Your task to perform on an android device: find which apps use the phone's location Image 0: 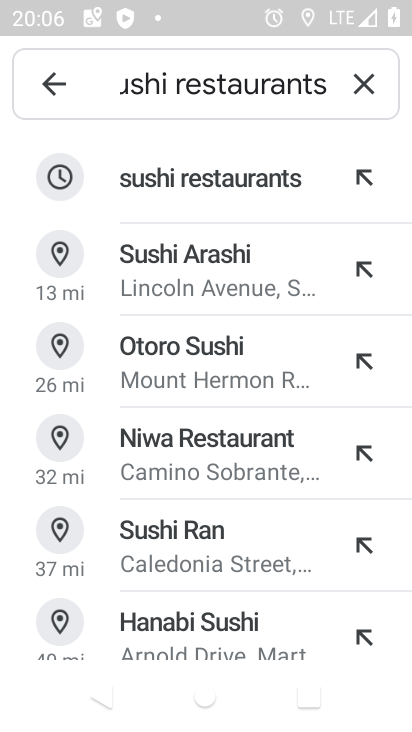
Step 0: press home button
Your task to perform on an android device: find which apps use the phone's location Image 1: 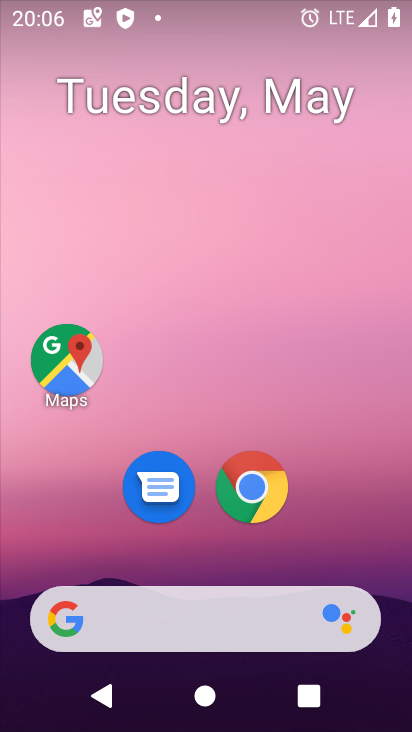
Step 1: drag from (323, 492) to (226, 58)
Your task to perform on an android device: find which apps use the phone's location Image 2: 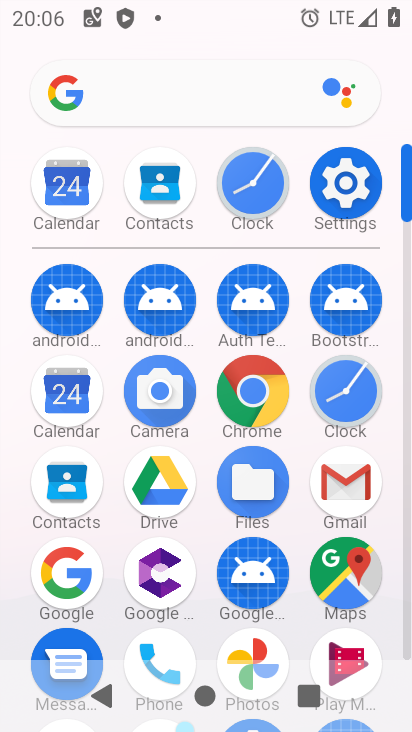
Step 2: click (357, 197)
Your task to perform on an android device: find which apps use the phone's location Image 3: 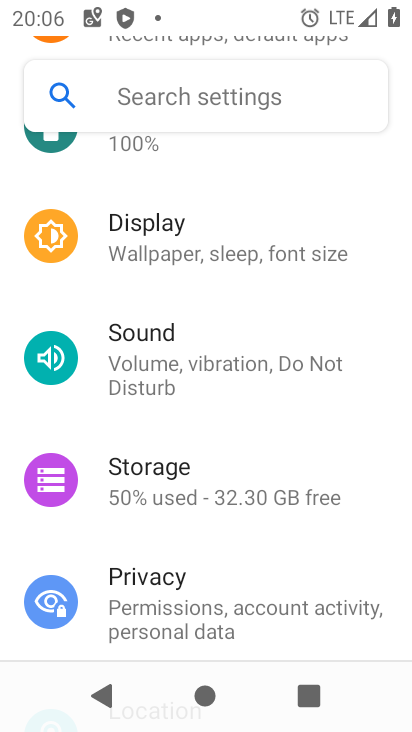
Step 3: drag from (208, 438) to (147, 150)
Your task to perform on an android device: find which apps use the phone's location Image 4: 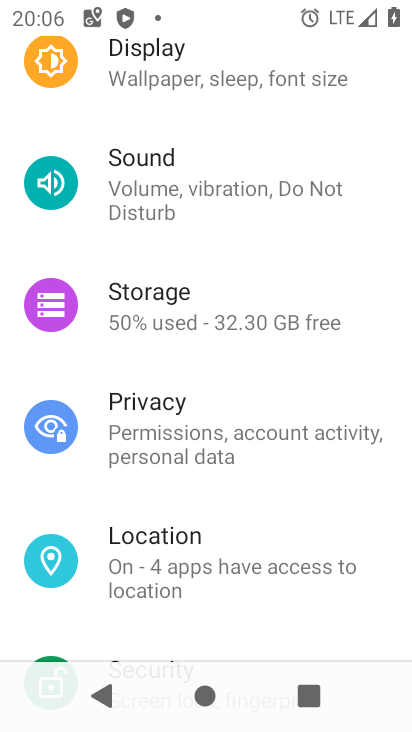
Step 4: click (172, 533)
Your task to perform on an android device: find which apps use the phone's location Image 5: 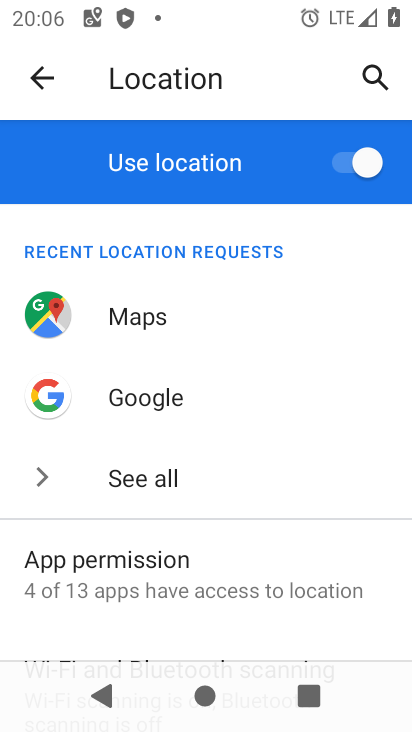
Step 5: click (136, 478)
Your task to perform on an android device: find which apps use the phone's location Image 6: 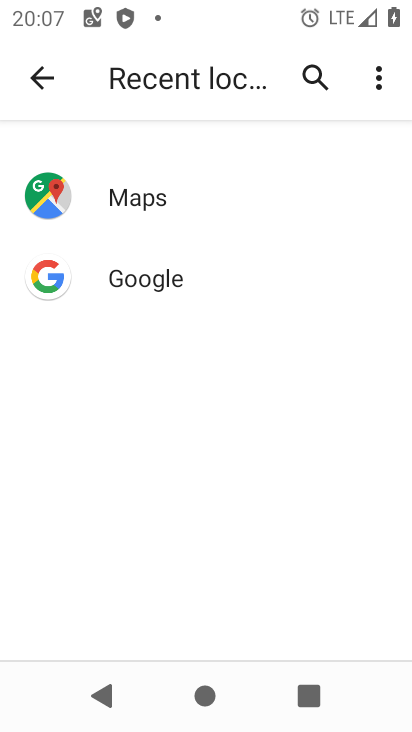
Step 6: task complete